Your task to perform on an android device: Open network settings Image 0: 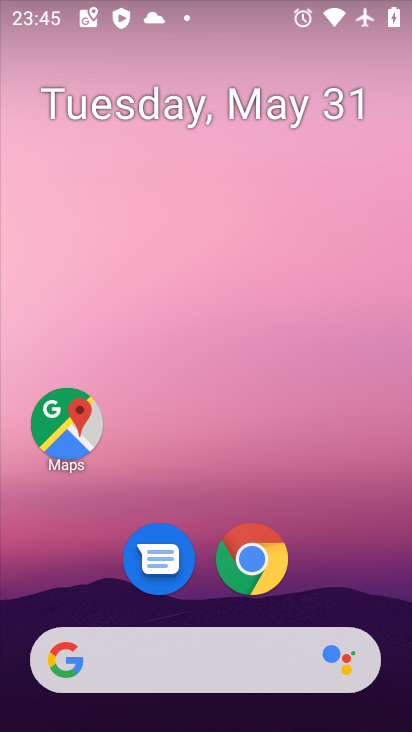
Step 0: drag from (310, 571) to (317, 42)
Your task to perform on an android device: Open network settings Image 1: 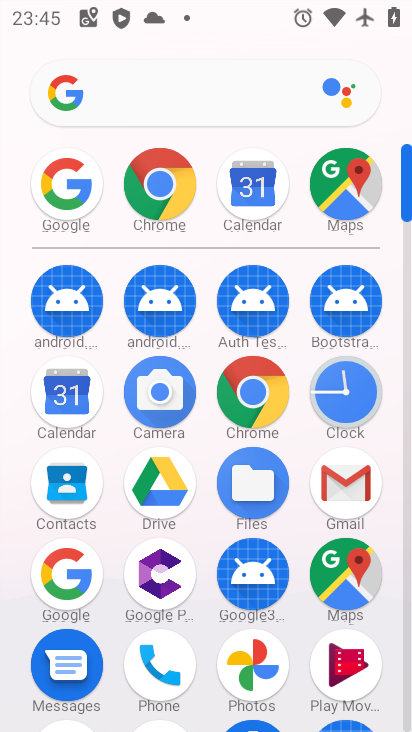
Step 1: drag from (208, 617) to (215, 213)
Your task to perform on an android device: Open network settings Image 2: 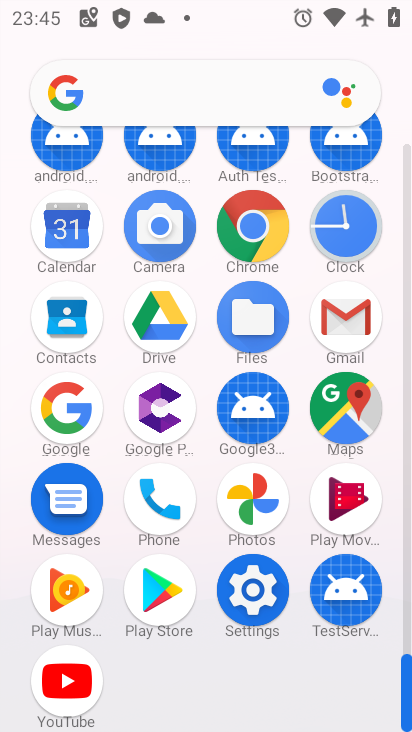
Step 2: click (257, 593)
Your task to perform on an android device: Open network settings Image 3: 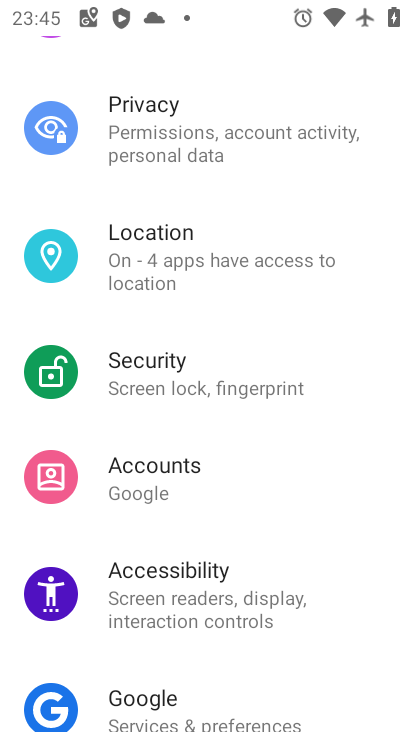
Step 3: drag from (242, 253) to (265, 638)
Your task to perform on an android device: Open network settings Image 4: 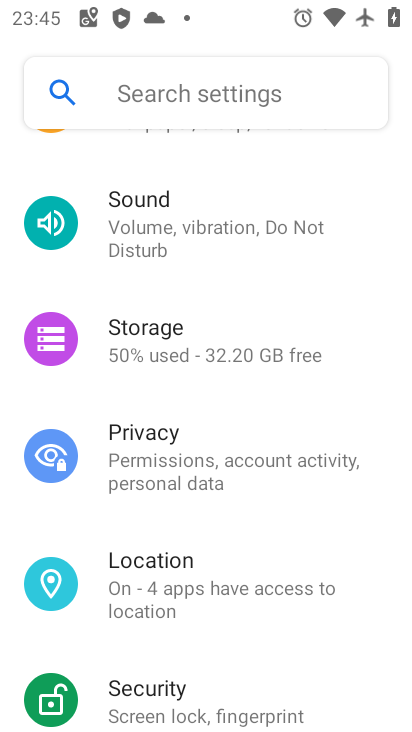
Step 4: drag from (237, 185) to (264, 583)
Your task to perform on an android device: Open network settings Image 5: 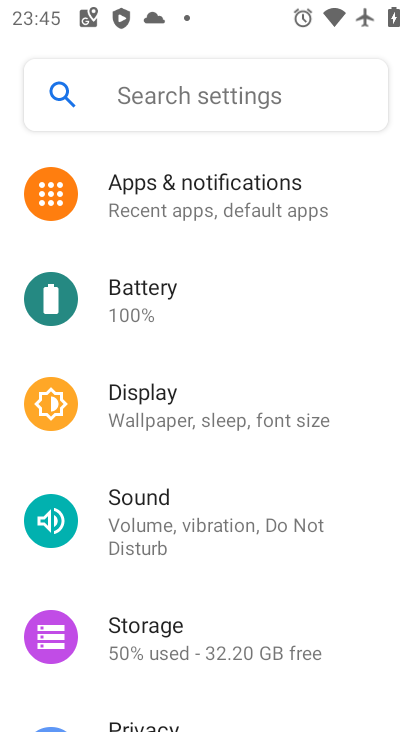
Step 5: drag from (178, 147) to (248, 730)
Your task to perform on an android device: Open network settings Image 6: 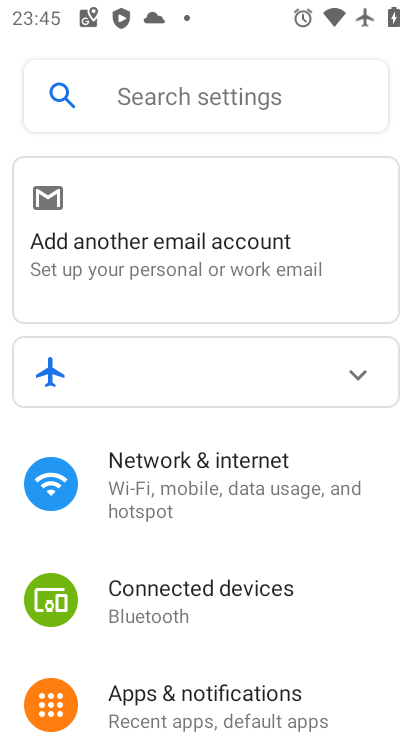
Step 6: click (188, 460)
Your task to perform on an android device: Open network settings Image 7: 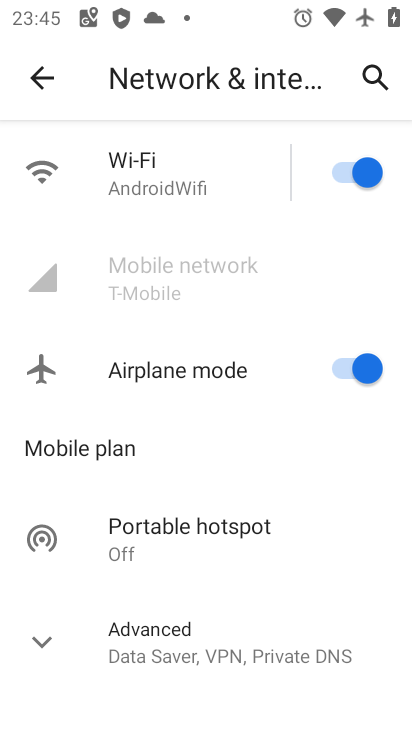
Step 7: click (353, 369)
Your task to perform on an android device: Open network settings Image 8: 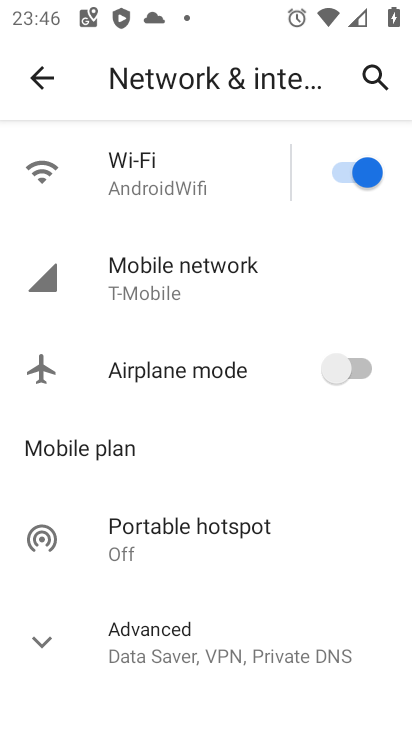
Step 8: task complete